Your task to perform on an android device: Go to wifi settings Image 0: 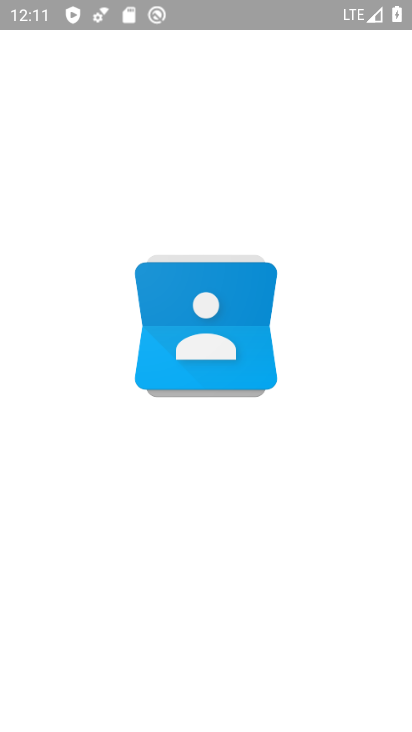
Step 0: click (66, 463)
Your task to perform on an android device: Go to wifi settings Image 1: 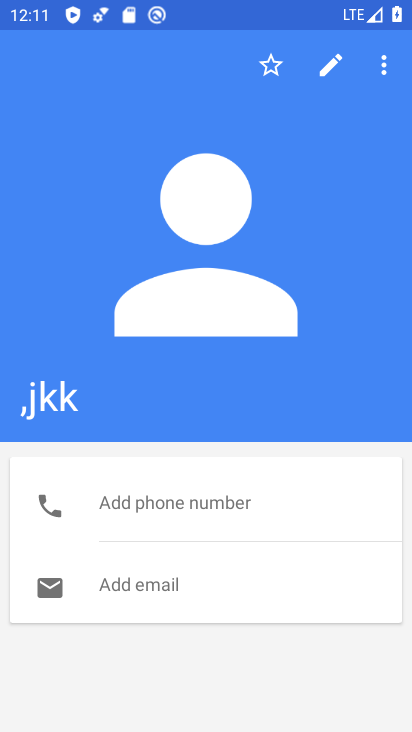
Step 1: press back button
Your task to perform on an android device: Go to wifi settings Image 2: 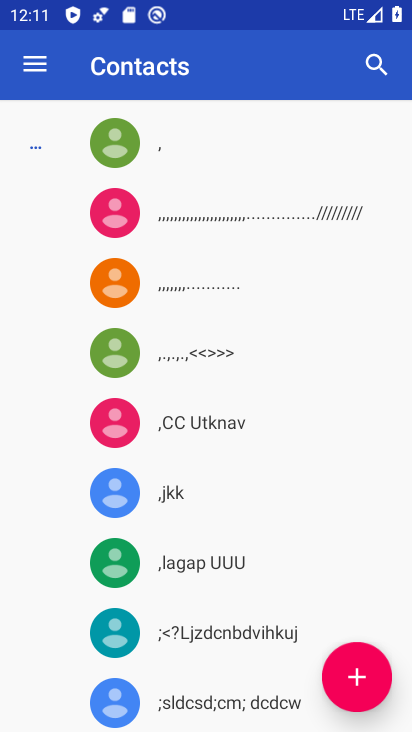
Step 2: press back button
Your task to perform on an android device: Go to wifi settings Image 3: 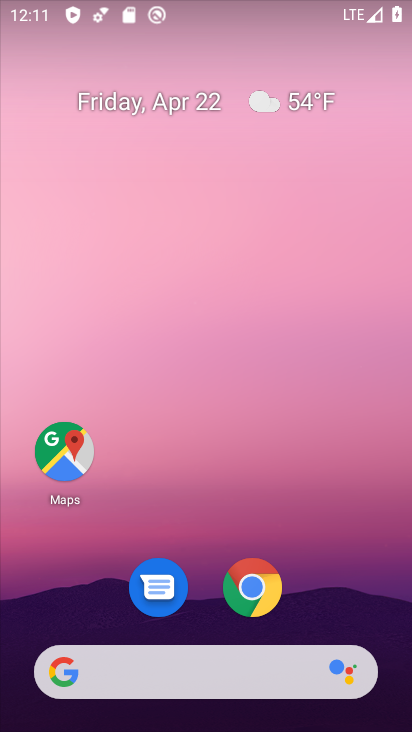
Step 3: drag from (98, 4) to (208, 536)
Your task to perform on an android device: Go to wifi settings Image 4: 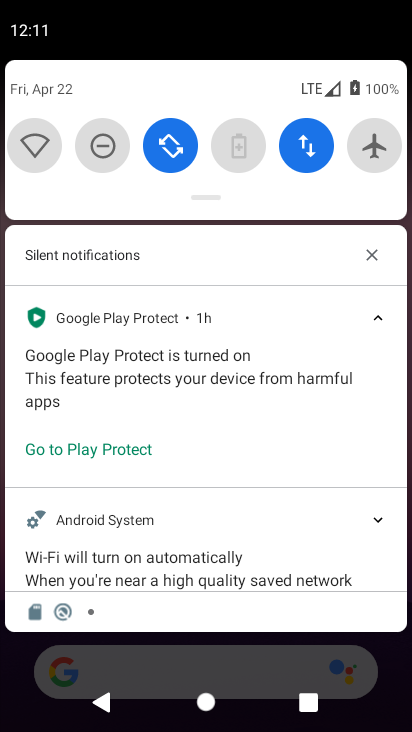
Step 4: click (37, 140)
Your task to perform on an android device: Go to wifi settings Image 5: 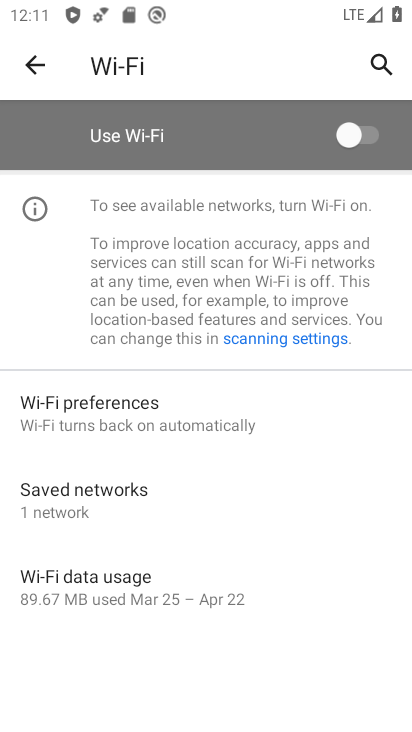
Step 5: task complete